Your task to perform on an android device: toggle pop-ups in chrome Image 0: 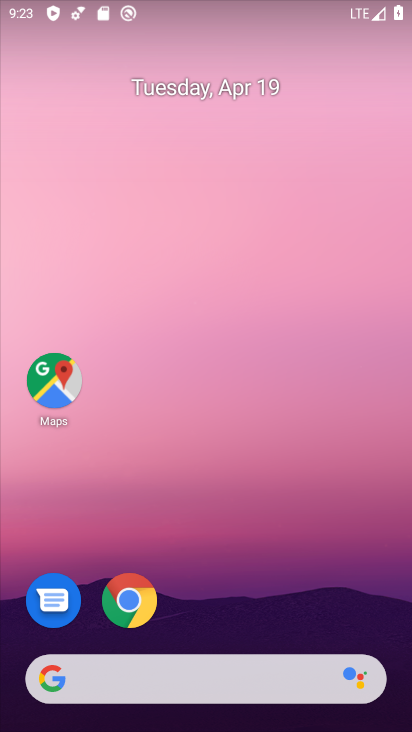
Step 0: click (149, 598)
Your task to perform on an android device: toggle pop-ups in chrome Image 1: 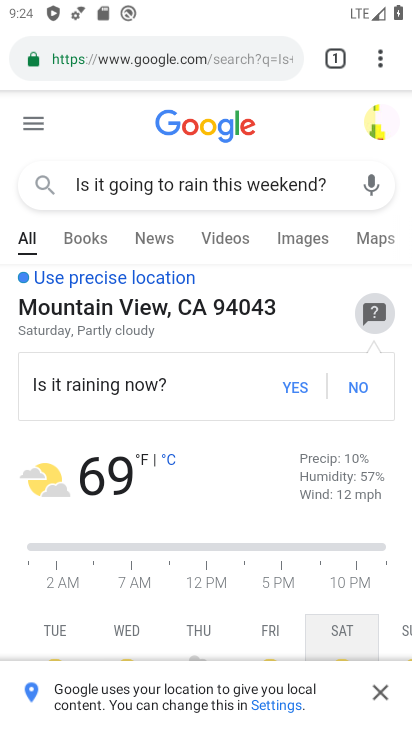
Step 1: click (377, 66)
Your task to perform on an android device: toggle pop-ups in chrome Image 2: 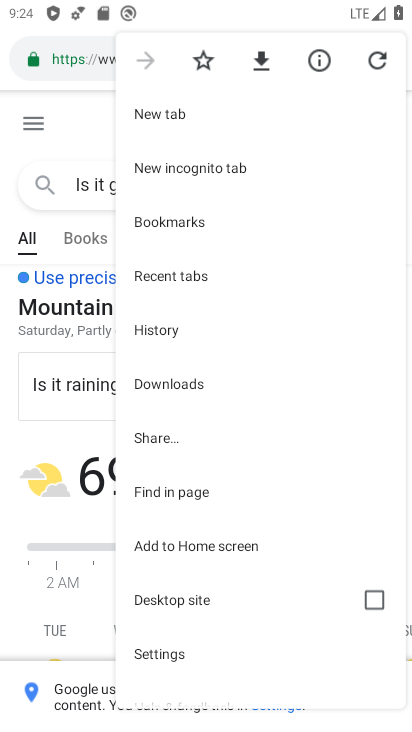
Step 2: click (241, 646)
Your task to perform on an android device: toggle pop-ups in chrome Image 3: 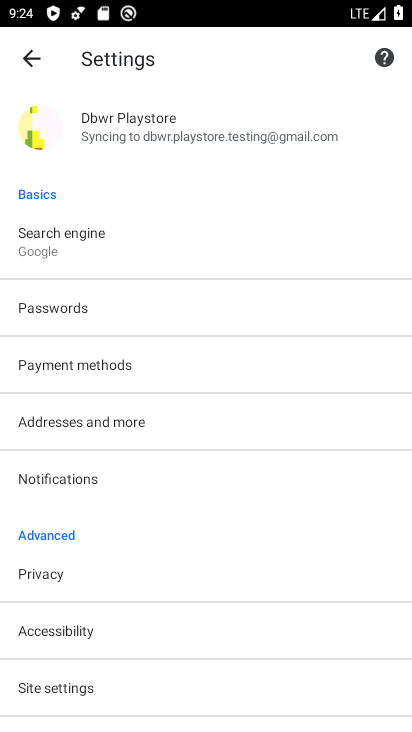
Step 3: drag from (223, 682) to (261, 491)
Your task to perform on an android device: toggle pop-ups in chrome Image 4: 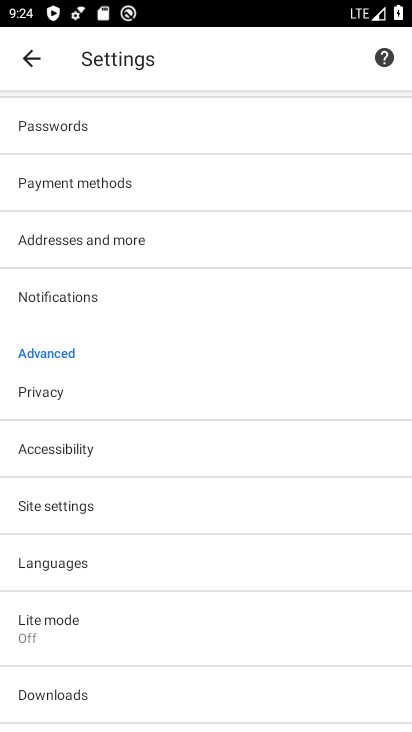
Step 4: click (244, 503)
Your task to perform on an android device: toggle pop-ups in chrome Image 5: 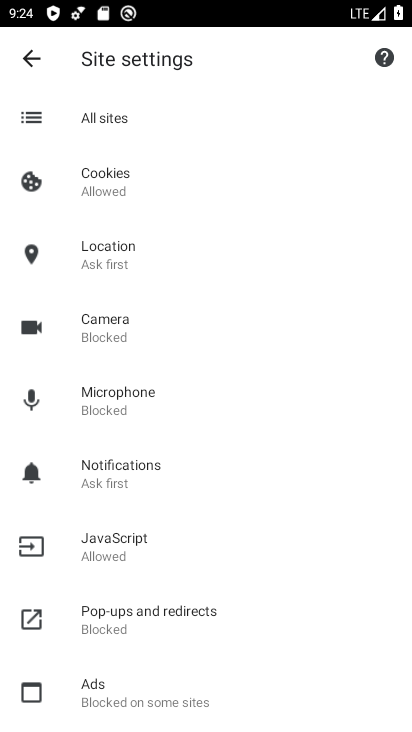
Step 5: click (256, 622)
Your task to perform on an android device: toggle pop-ups in chrome Image 6: 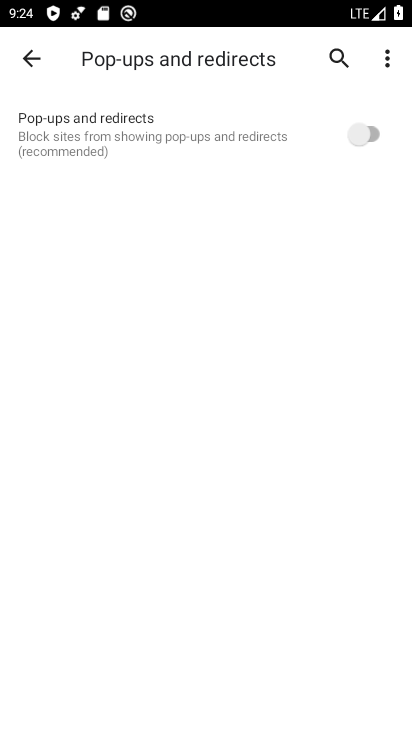
Step 6: click (378, 144)
Your task to perform on an android device: toggle pop-ups in chrome Image 7: 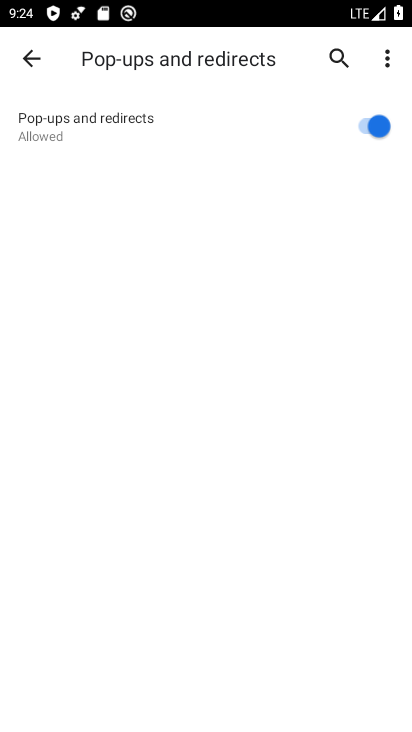
Step 7: task complete